Your task to perform on an android device: Search for sushi restaurants on Maps Image 0: 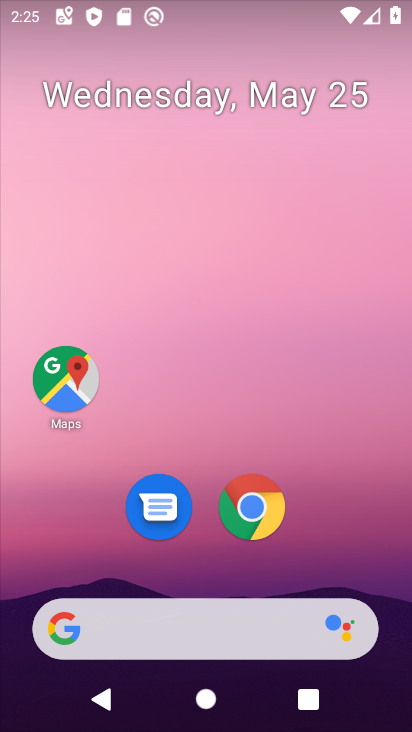
Step 0: drag from (199, 612) to (206, 9)
Your task to perform on an android device: Search for sushi restaurants on Maps Image 1: 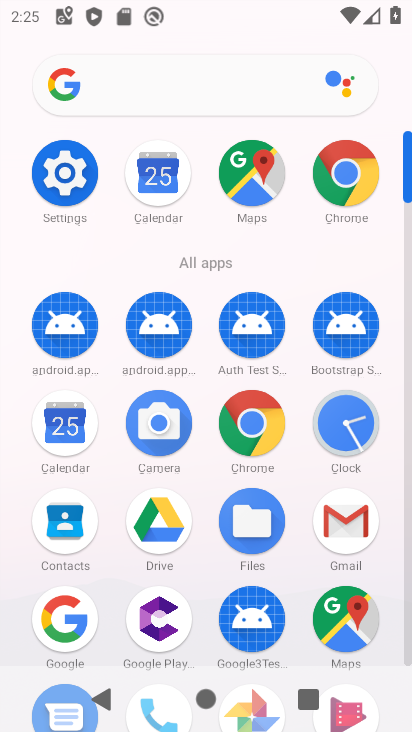
Step 1: click (285, 176)
Your task to perform on an android device: Search for sushi restaurants on Maps Image 2: 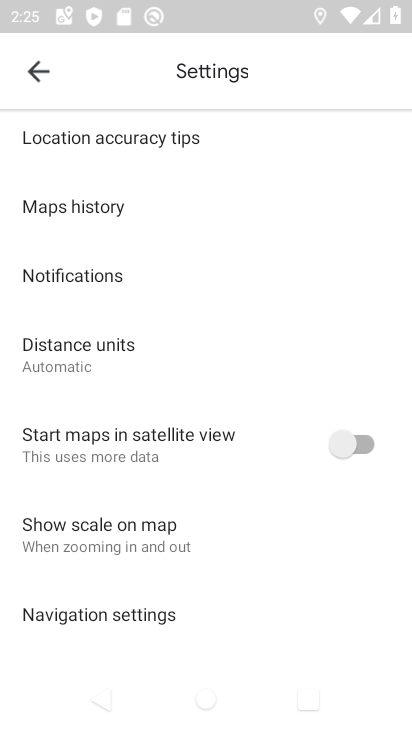
Step 2: click (32, 79)
Your task to perform on an android device: Search for sushi restaurants on Maps Image 3: 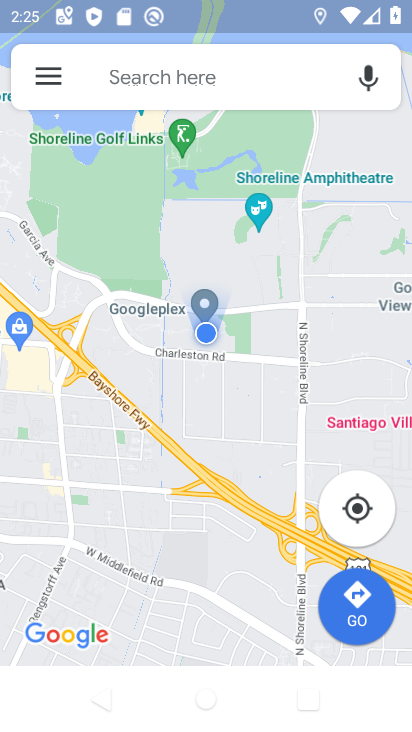
Step 3: click (187, 68)
Your task to perform on an android device: Search for sushi restaurants on Maps Image 4: 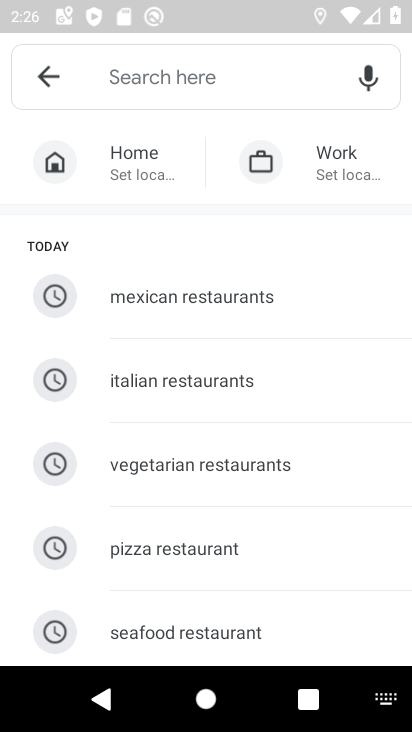
Step 4: drag from (195, 525) to (176, 223)
Your task to perform on an android device: Search for sushi restaurants on Maps Image 5: 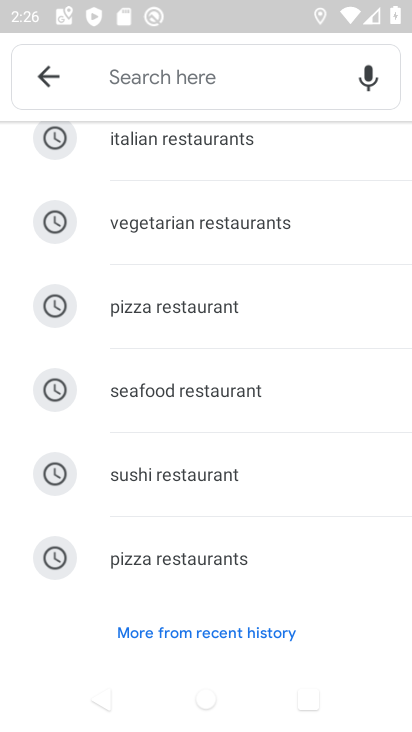
Step 5: click (186, 476)
Your task to perform on an android device: Search for sushi restaurants on Maps Image 6: 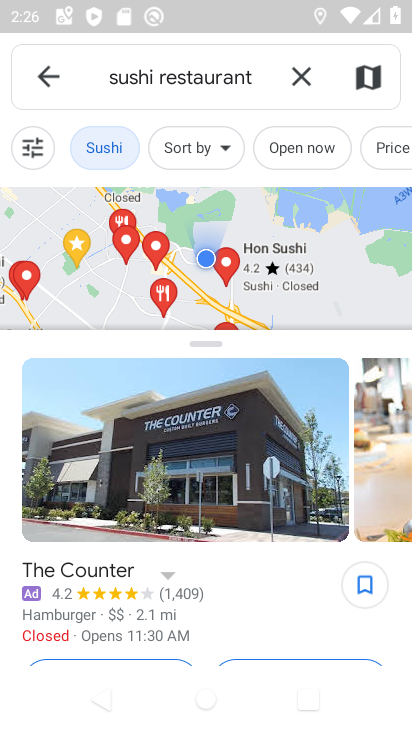
Step 6: task complete